Your task to perform on an android device: turn on airplane mode Image 0: 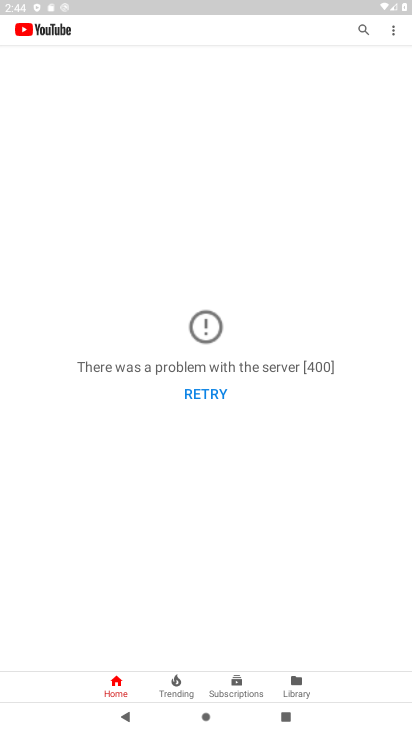
Step 0: press home button
Your task to perform on an android device: turn on airplane mode Image 1: 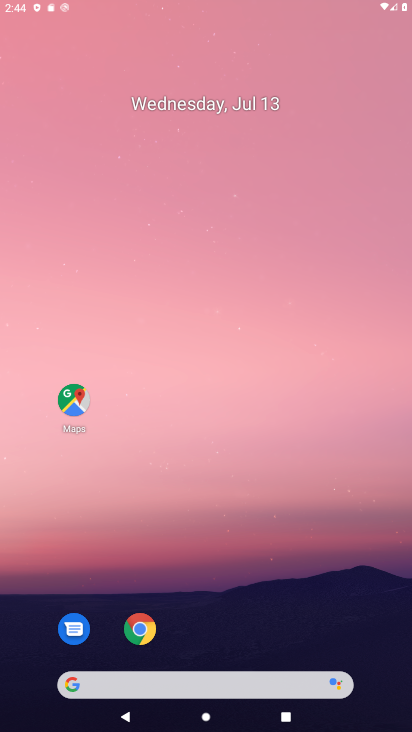
Step 1: drag from (217, 597) to (228, 229)
Your task to perform on an android device: turn on airplane mode Image 2: 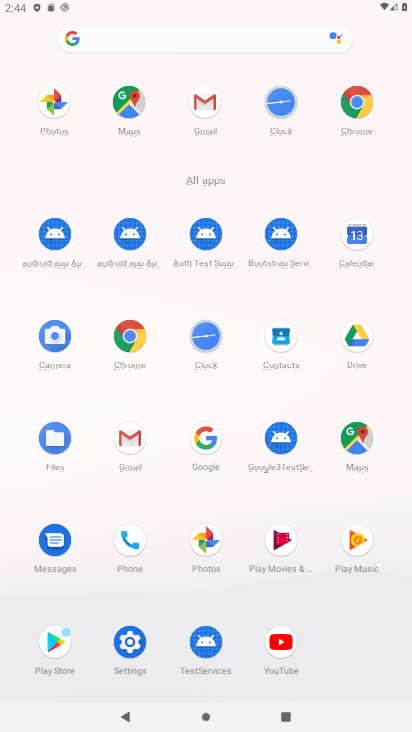
Step 2: click (117, 638)
Your task to perform on an android device: turn on airplane mode Image 3: 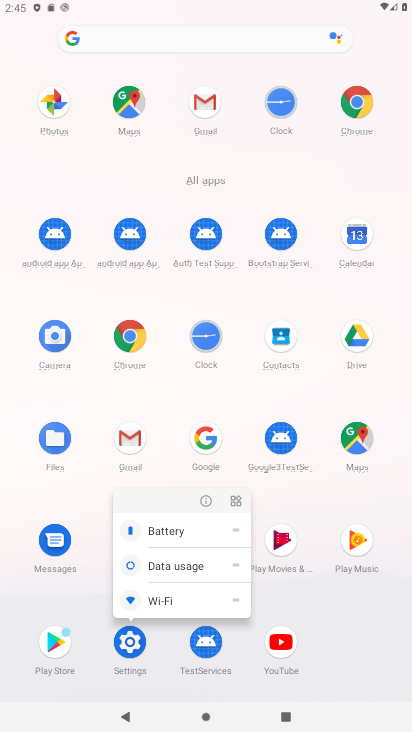
Step 3: click (127, 645)
Your task to perform on an android device: turn on airplane mode Image 4: 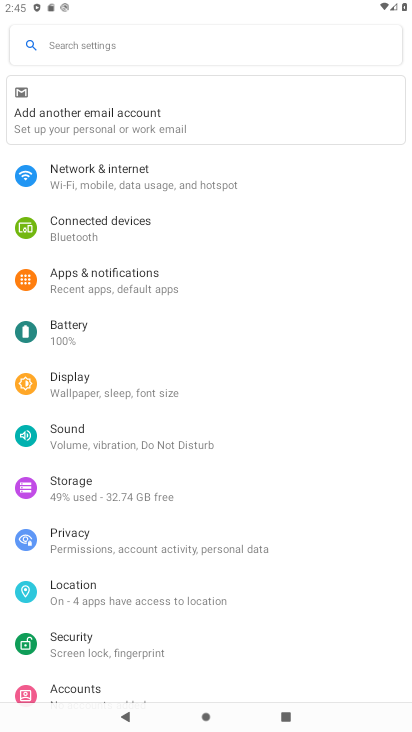
Step 4: click (134, 193)
Your task to perform on an android device: turn on airplane mode Image 5: 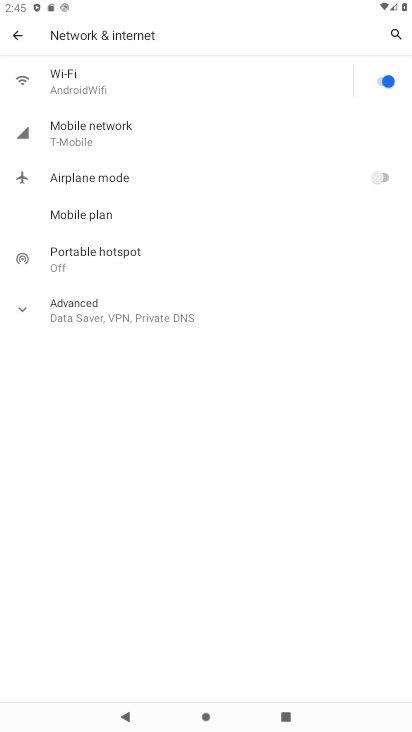
Step 5: click (386, 137)
Your task to perform on an android device: turn on airplane mode Image 6: 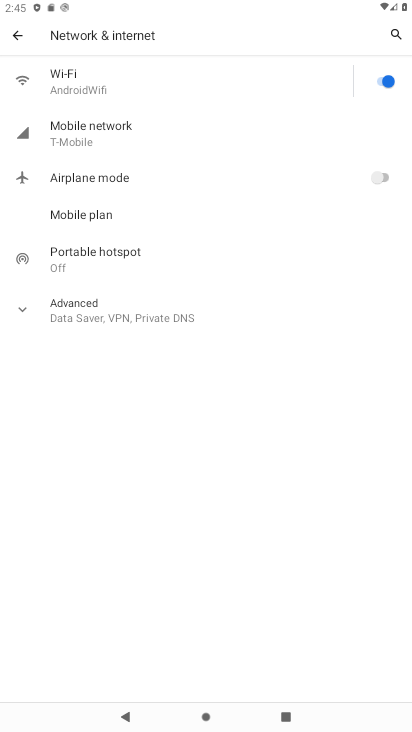
Step 6: click (382, 158)
Your task to perform on an android device: turn on airplane mode Image 7: 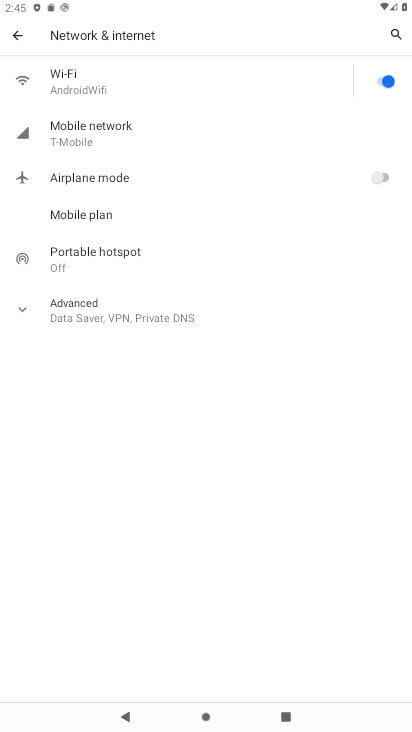
Step 7: click (377, 176)
Your task to perform on an android device: turn on airplane mode Image 8: 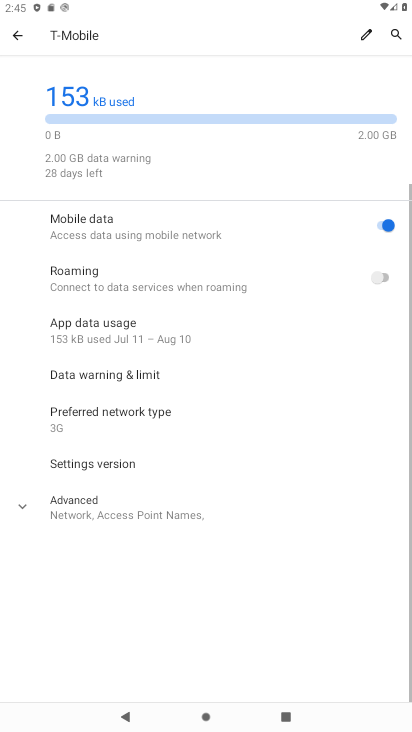
Step 8: click (377, 176)
Your task to perform on an android device: turn on airplane mode Image 9: 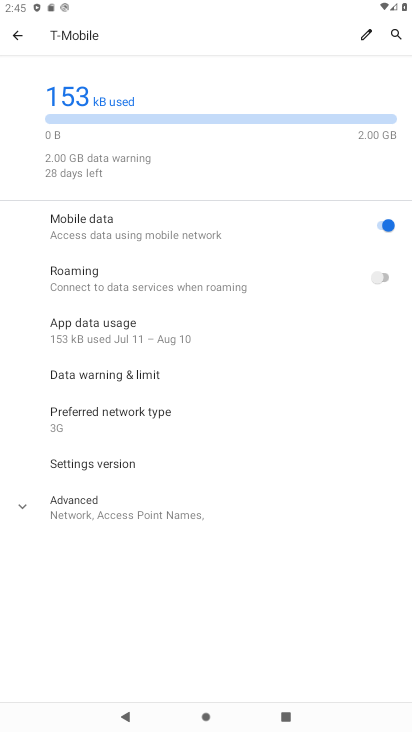
Step 9: click (1, 35)
Your task to perform on an android device: turn on airplane mode Image 10: 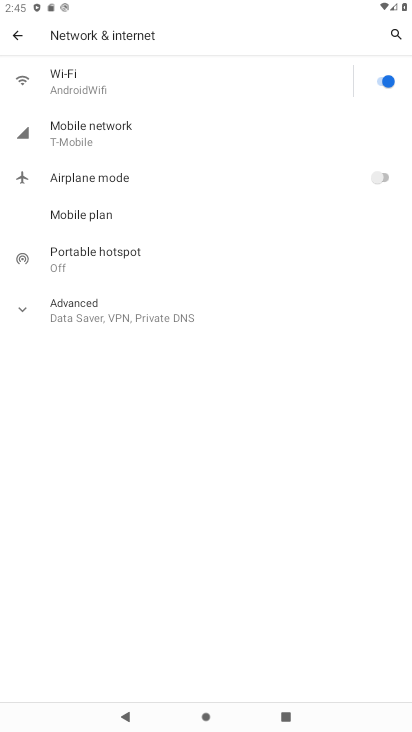
Step 10: click (17, 33)
Your task to perform on an android device: turn on airplane mode Image 11: 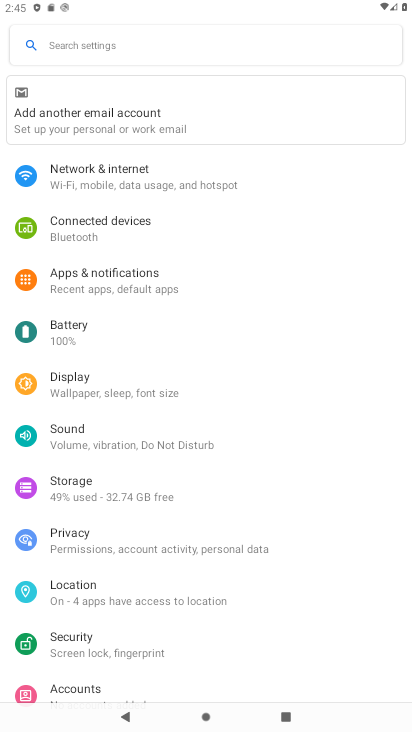
Step 11: click (105, 166)
Your task to perform on an android device: turn on airplane mode Image 12: 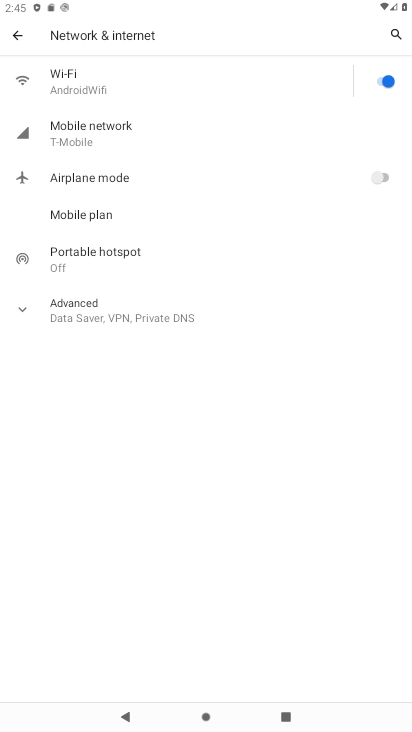
Step 12: click (384, 176)
Your task to perform on an android device: turn on airplane mode Image 13: 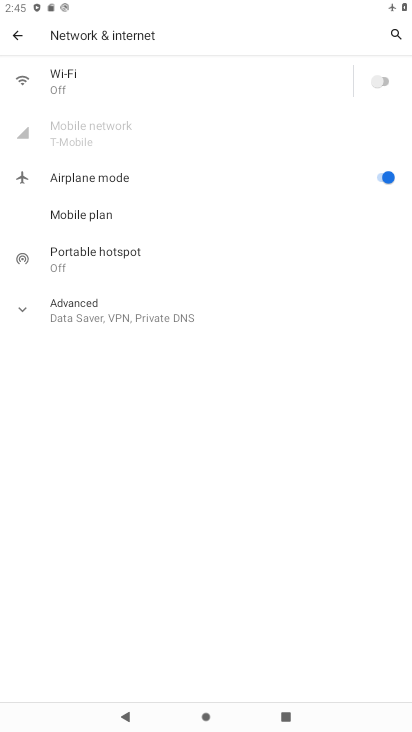
Step 13: task complete